Your task to perform on an android device: Show me popular games on the Play Store Image 0: 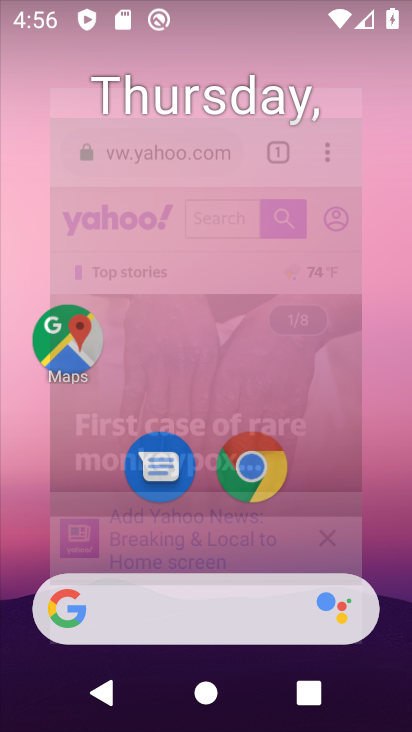
Step 0: drag from (380, 425) to (323, 123)
Your task to perform on an android device: Show me popular games on the Play Store Image 1: 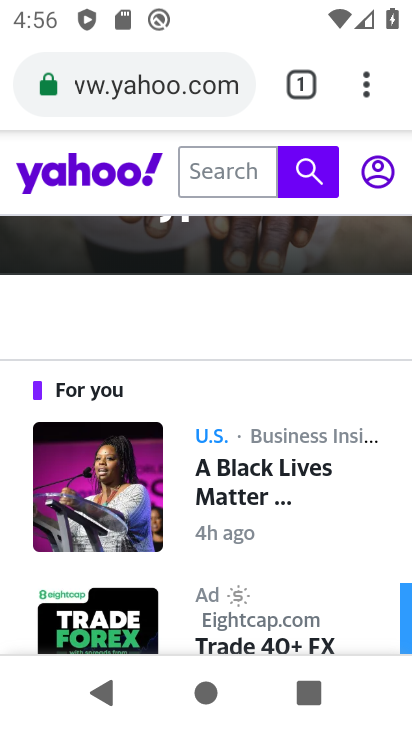
Step 1: press home button
Your task to perform on an android device: Show me popular games on the Play Store Image 2: 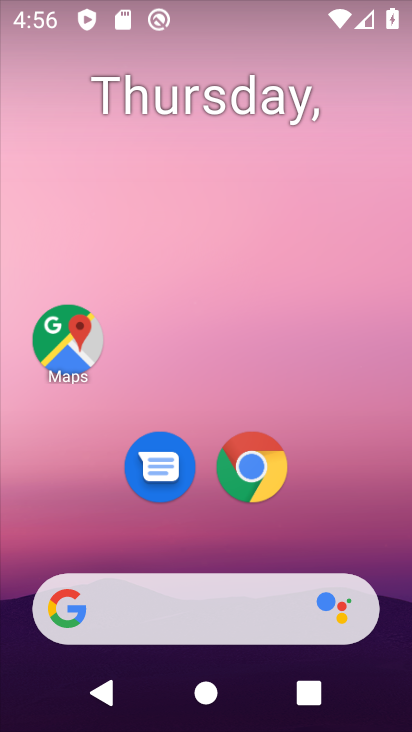
Step 2: drag from (316, 530) to (274, 68)
Your task to perform on an android device: Show me popular games on the Play Store Image 3: 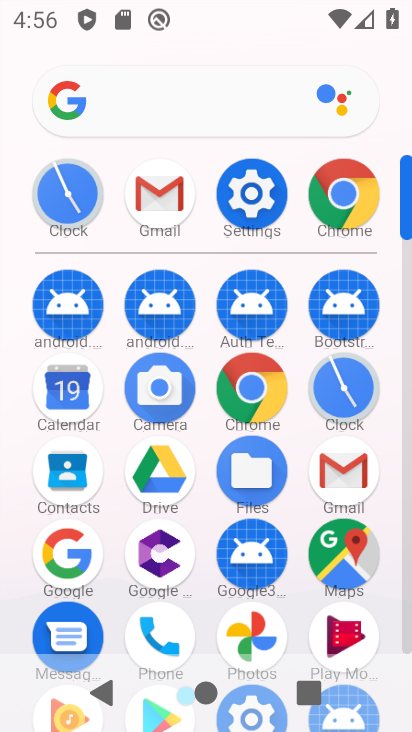
Step 3: click (408, 642)
Your task to perform on an android device: Show me popular games on the Play Store Image 4: 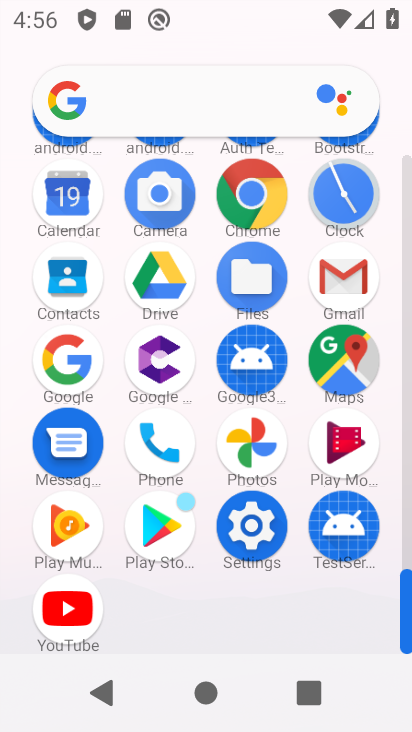
Step 4: click (181, 539)
Your task to perform on an android device: Show me popular games on the Play Store Image 5: 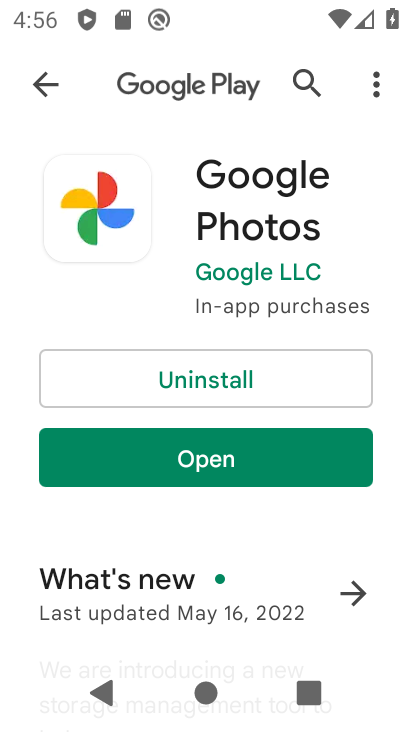
Step 5: click (45, 96)
Your task to perform on an android device: Show me popular games on the Play Store Image 6: 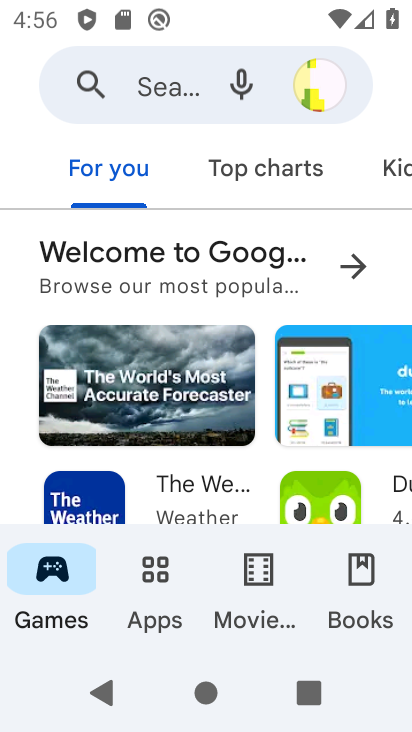
Step 6: click (245, 272)
Your task to perform on an android device: Show me popular games on the Play Store Image 7: 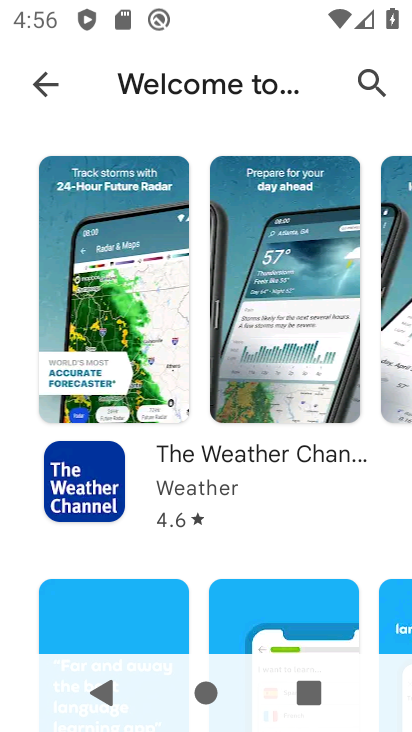
Step 7: task complete